Your task to perform on an android device: Open calendar and show me the second week of next month Image 0: 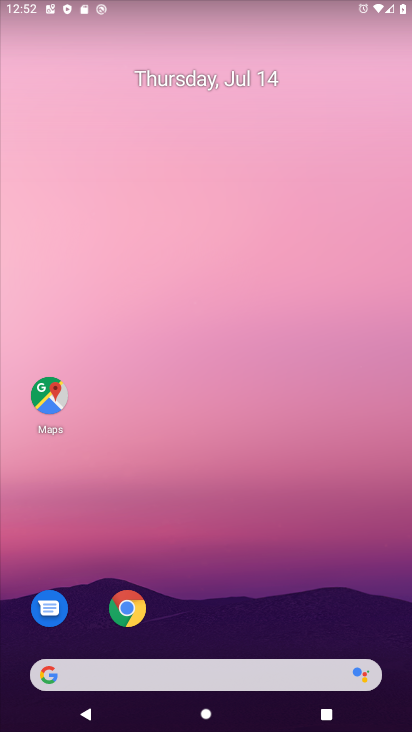
Step 0: drag from (260, 680) to (271, 260)
Your task to perform on an android device: Open calendar and show me the second week of next month Image 1: 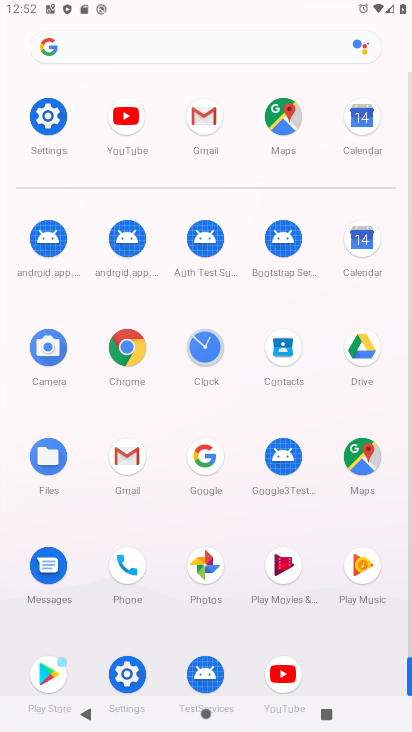
Step 1: click (360, 242)
Your task to perform on an android device: Open calendar and show me the second week of next month Image 2: 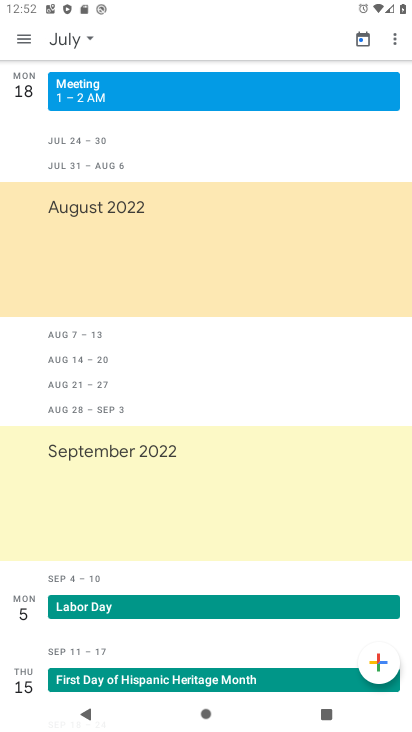
Step 2: click (365, 38)
Your task to perform on an android device: Open calendar and show me the second week of next month Image 3: 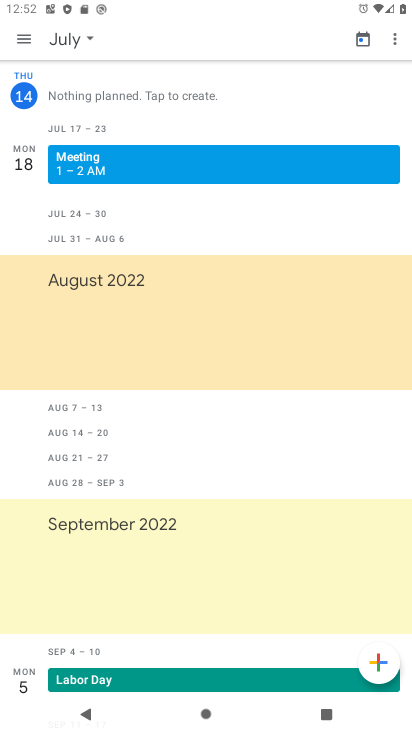
Step 3: click (87, 37)
Your task to perform on an android device: Open calendar and show me the second week of next month Image 4: 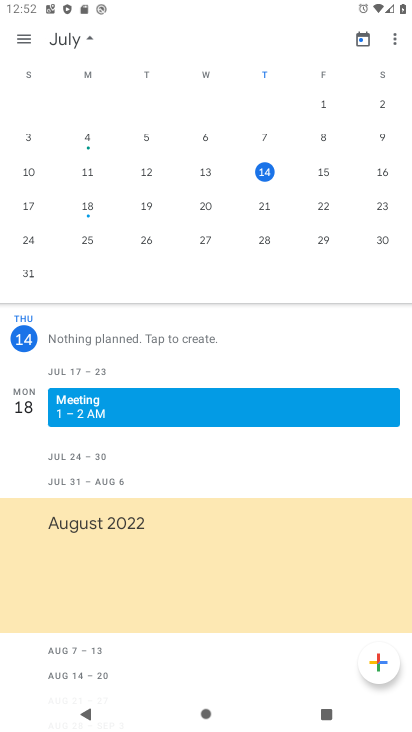
Step 4: drag from (367, 186) to (0, 193)
Your task to perform on an android device: Open calendar and show me the second week of next month Image 5: 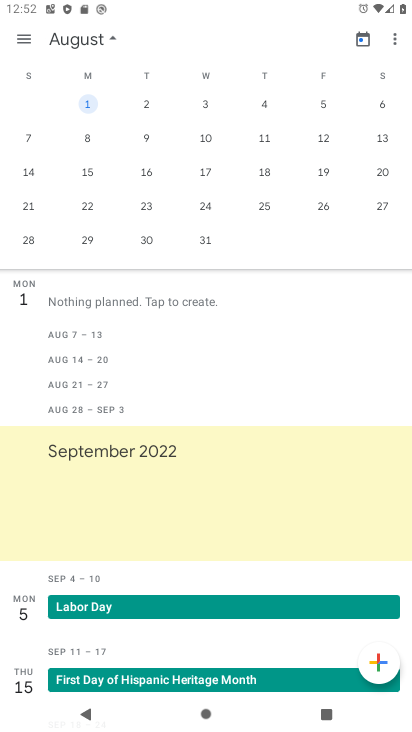
Step 5: click (89, 135)
Your task to perform on an android device: Open calendar and show me the second week of next month Image 6: 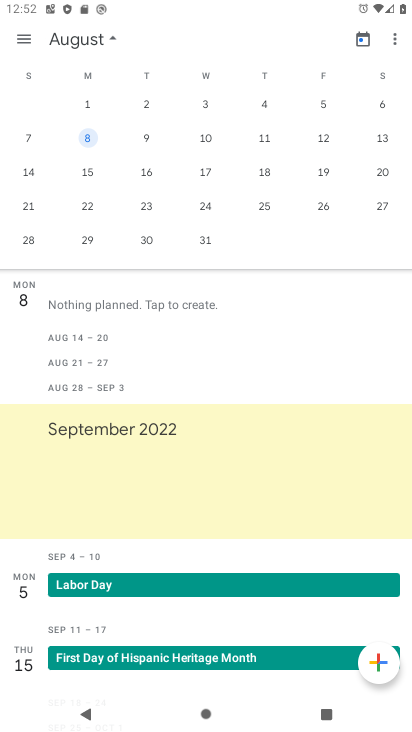
Step 6: click (26, 37)
Your task to perform on an android device: Open calendar and show me the second week of next month Image 7: 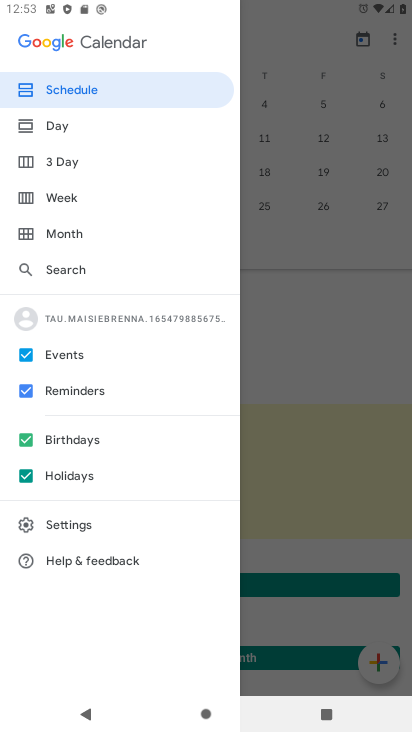
Step 7: click (48, 196)
Your task to perform on an android device: Open calendar and show me the second week of next month Image 8: 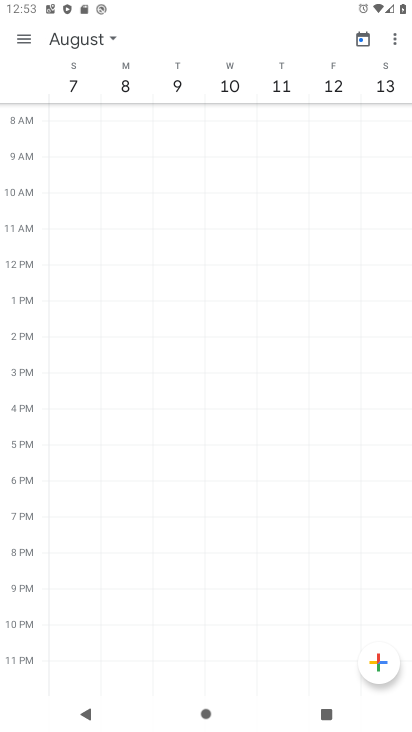
Step 8: task complete